Your task to perform on an android device: turn on notifications settings in the gmail app Image 0: 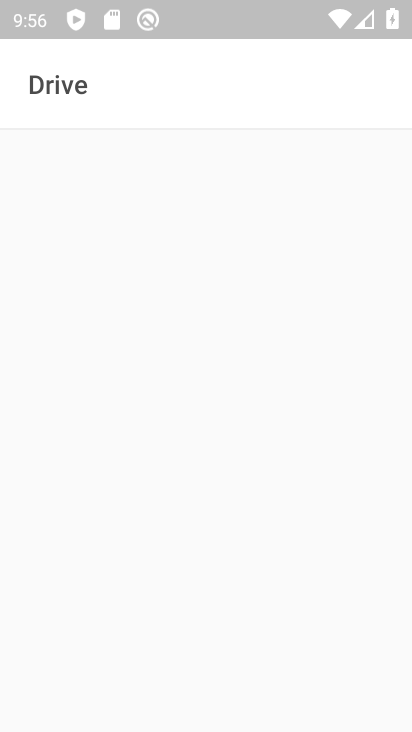
Step 0: press home button
Your task to perform on an android device: turn on notifications settings in the gmail app Image 1: 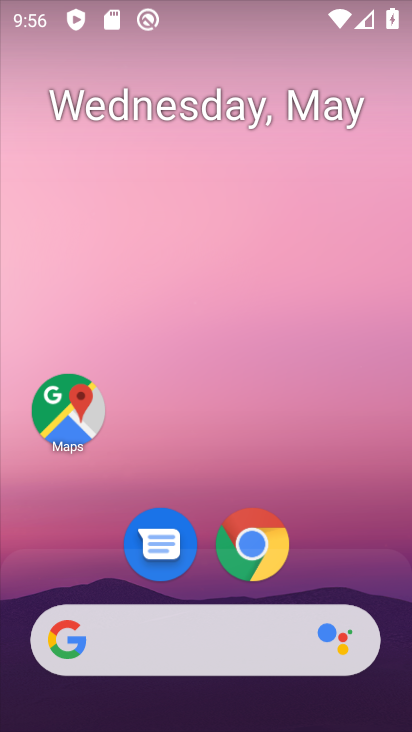
Step 1: drag from (170, 653) to (257, 8)
Your task to perform on an android device: turn on notifications settings in the gmail app Image 2: 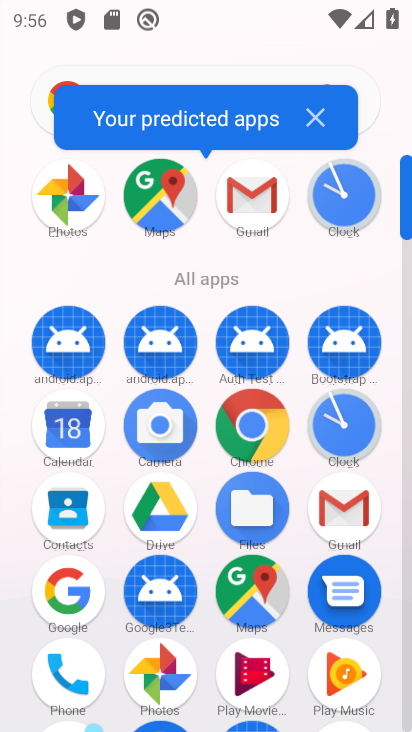
Step 2: click (327, 499)
Your task to perform on an android device: turn on notifications settings in the gmail app Image 3: 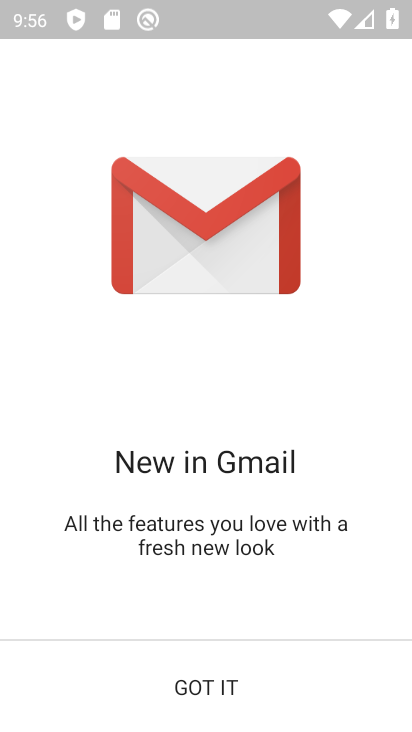
Step 3: click (207, 679)
Your task to perform on an android device: turn on notifications settings in the gmail app Image 4: 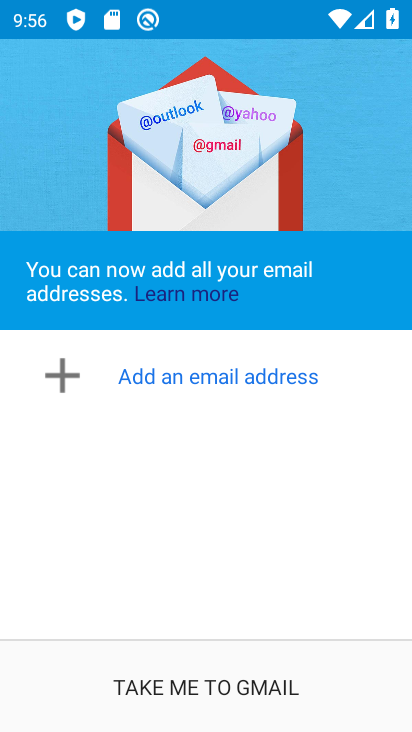
Step 4: click (207, 678)
Your task to perform on an android device: turn on notifications settings in the gmail app Image 5: 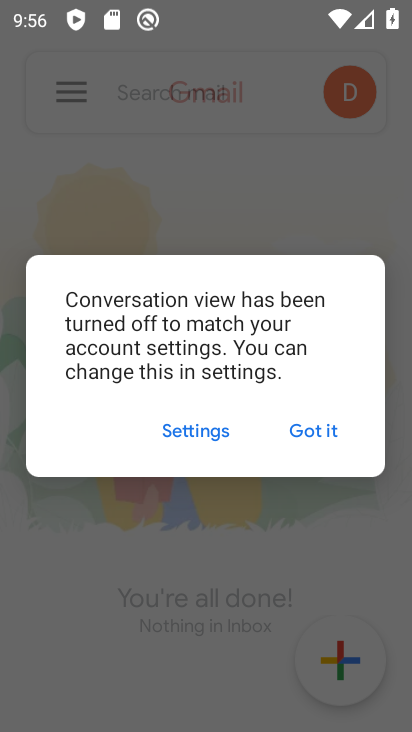
Step 5: click (303, 427)
Your task to perform on an android device: turn on notifications settings in the gmail app Image 6: 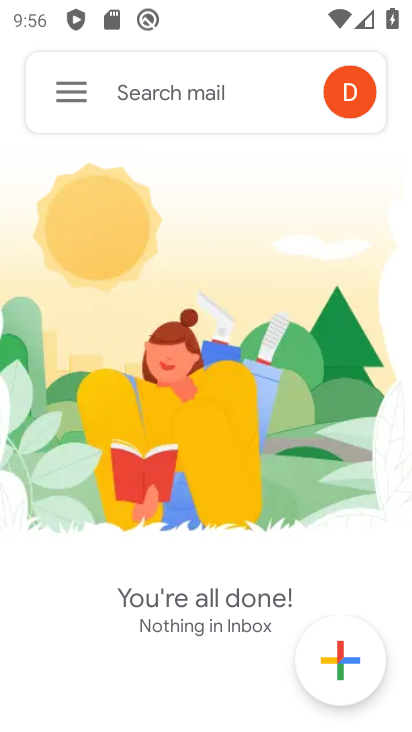
Step 6: click (86, 92)
Your task to perform on an android device: turn on notifications settings in the gmail app Image 7: 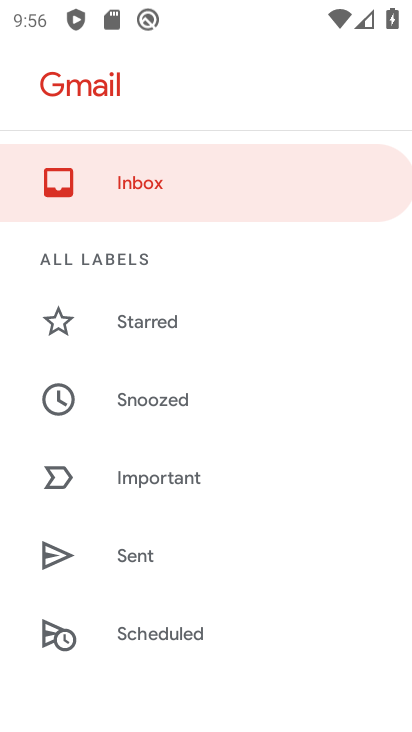
Step 7: drag from (270, 554) to (254, 79)
Your task to perform on an android device: turn on notifications settings in the gmail app Image 8: 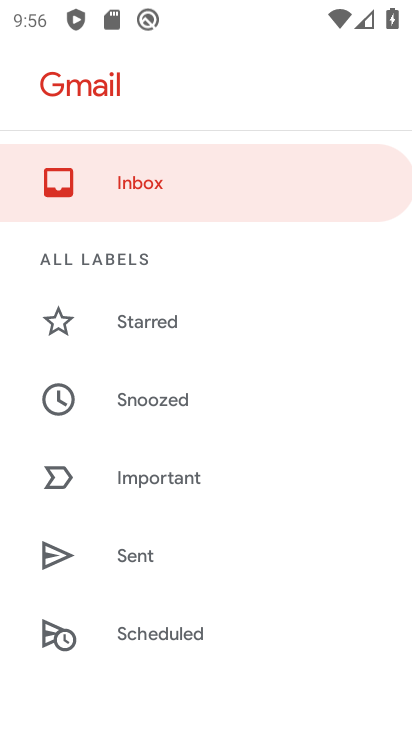
Step 8: drag from (243, 640) to (304, 147)
Your task to perform on an android device: turn on notifications settings in the gmail app Image 9: 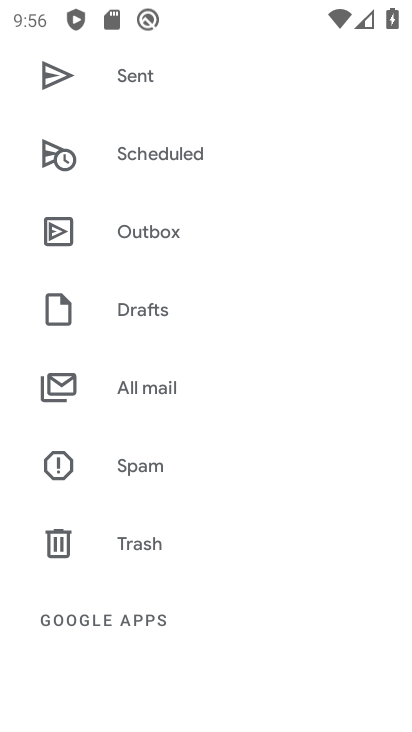
Step 9: drag from (240, 580) to (256, 181)
Your task to perform on an android device: turn on notifications settings in the gmail app Image 10: 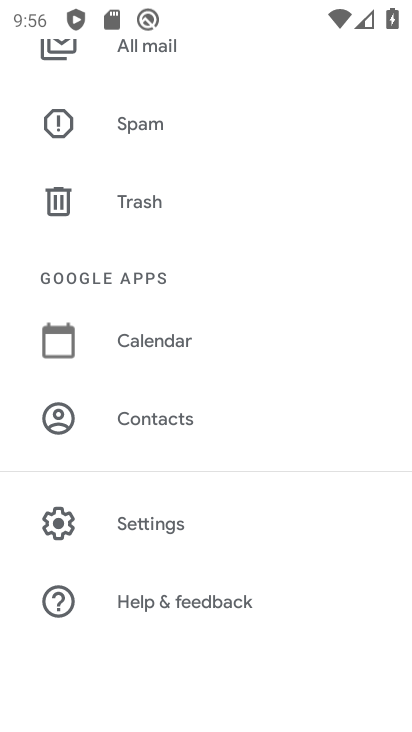
Step 10: drag from (231, 617) to (319, 152)
Your task to perform on an android device: turn on notifications settings in the gmail app Image 11: 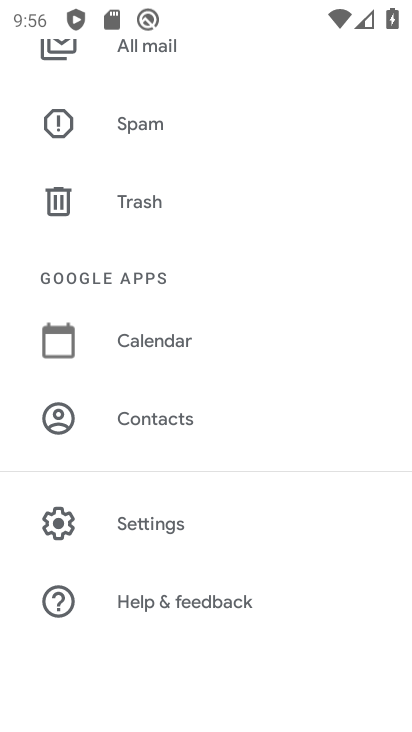
Step 11: click (209, 531)
Your task to perform on an android device: turn on notifications settings in the gmail app Image 12: 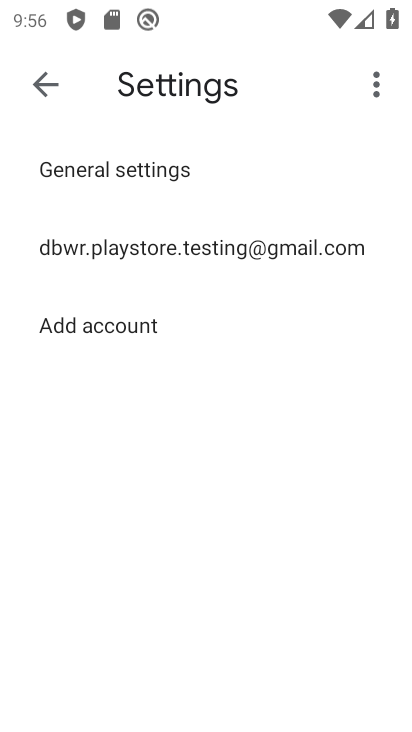
Step 12: click (211, 243)
Your task to perform on an android device: turn on notifications settings in the gmail app Image 13: 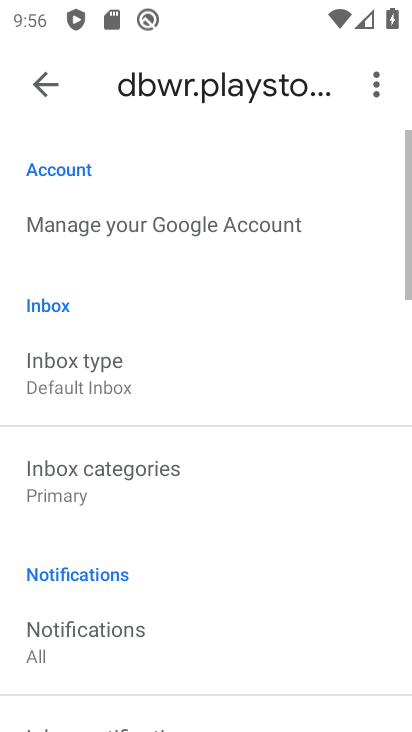
Step 13: drag from (186, 567) to (191, 127)
Your task to perform on an android device: turn on notifications settings in the gmail app Image 14: 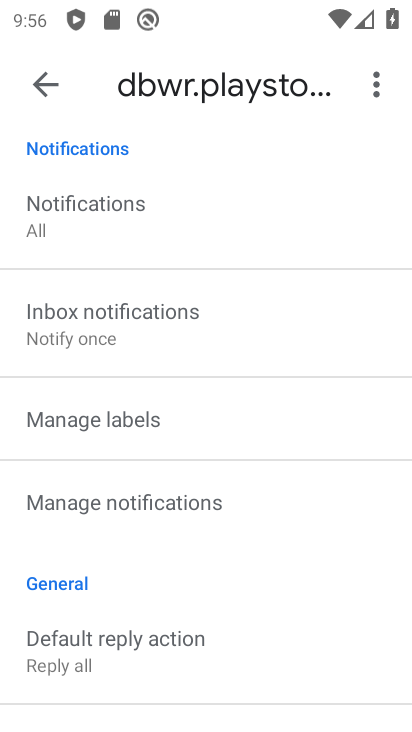
Step 14: click (132, 505)
Your task to perform on an android device: turn on notifications settings in the gmail app Image 15: 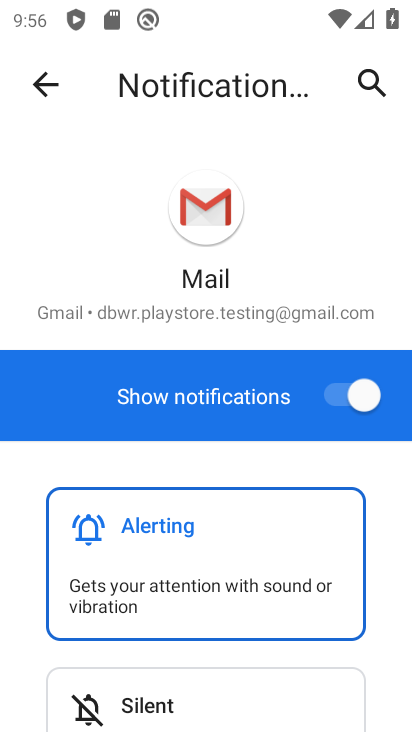
Step 15: task complete